Your task to perform on an android device: What is the recent news? Image 0: 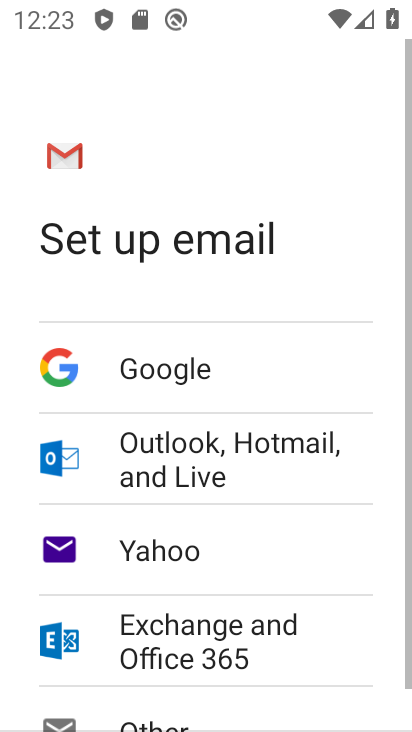
Step 0: press home button
Your task to perform on an android device: What is the recent news? Image 1: 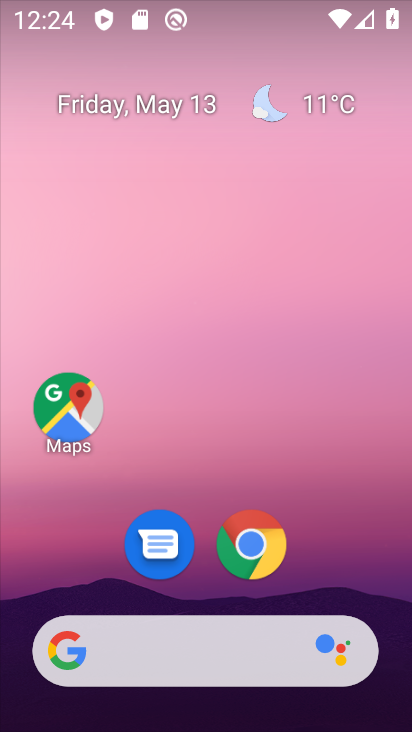
Step 1: click (261, 554)
Your task to perform on an android device: What is the recent news? Image 2: 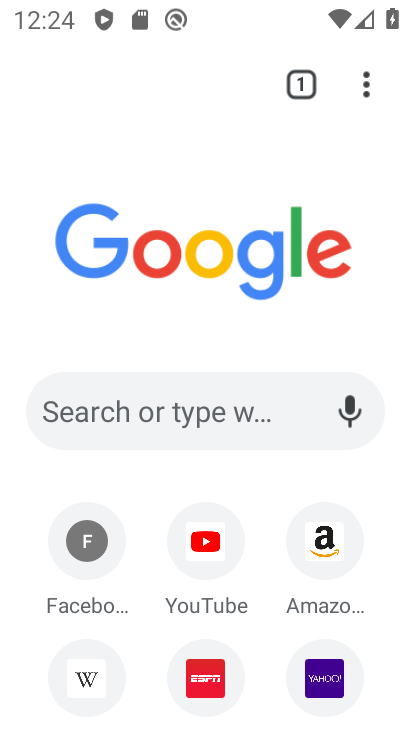
Step 2: click (194, 416)
Your task to perform on an android device: What is the recent news? Image 3: 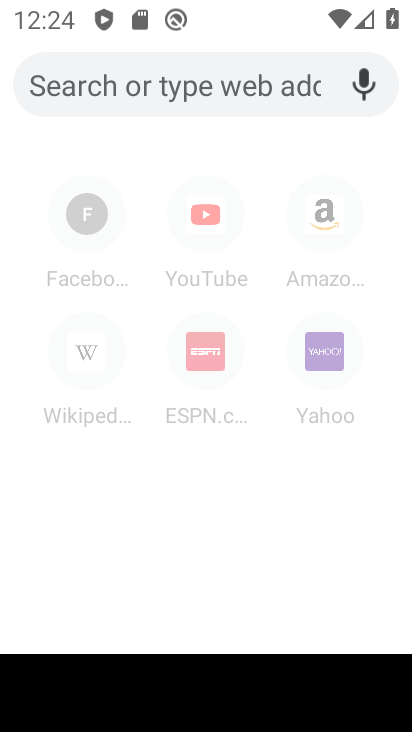
Step 3: type "recent news"
Your task to perform on an android device: What is the recent news? Image 4: 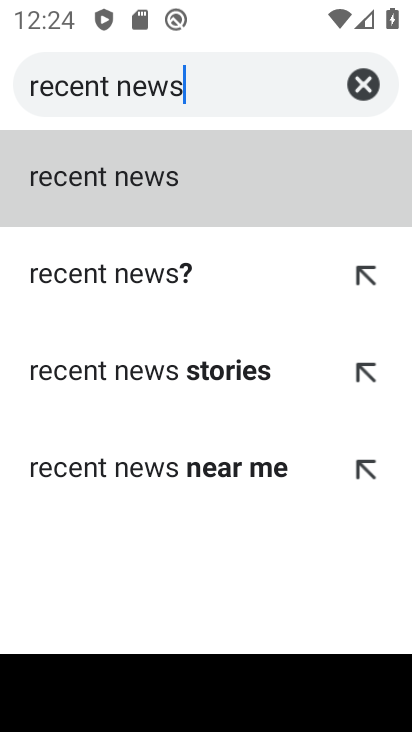
Step 4: click (89, 177)
Your task to perform on an android device: What is the recent news? Image 5: 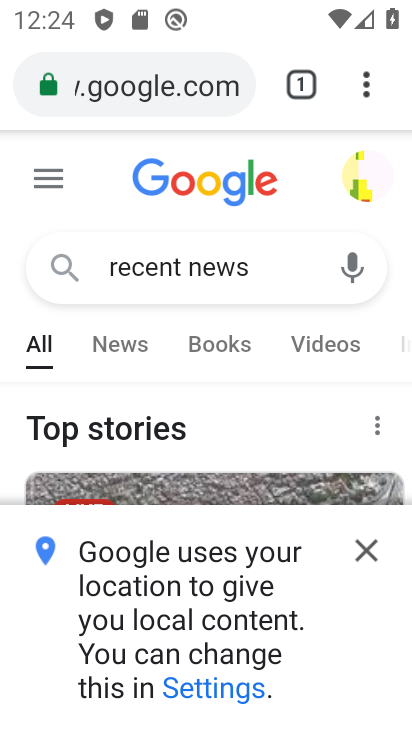
Step 5: task complete